Your task to perform on an android device: Show me the alarms in the clock app Image 0: 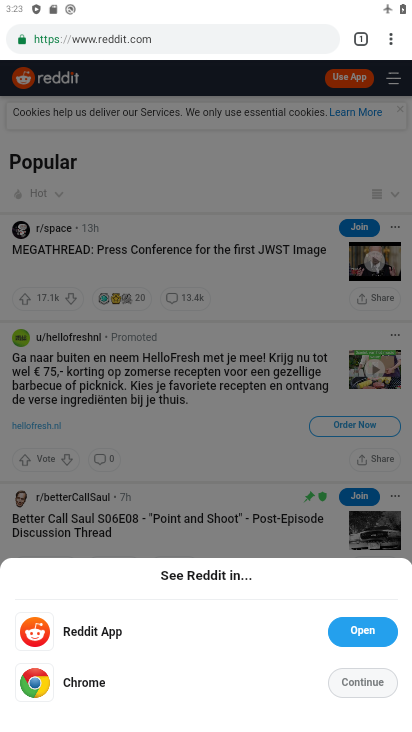
Step 0: press home button
Your task to perform on an android device: Show me the alarms in the clock app Image 1: 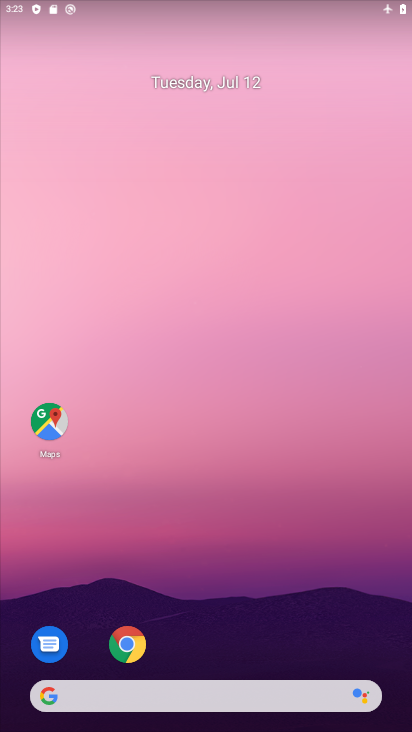
Step 1: drag from (220, 449) to (214, 37)
Your task to perform on an android device: Show me the alarms in the clock app Image 2: 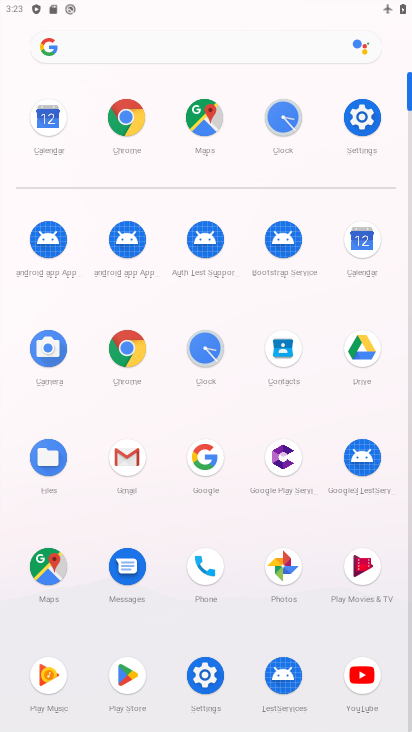
Step 2: click (200, 355)
Your task to perform on an android device: Show me the alarms in the clock app Image 3: 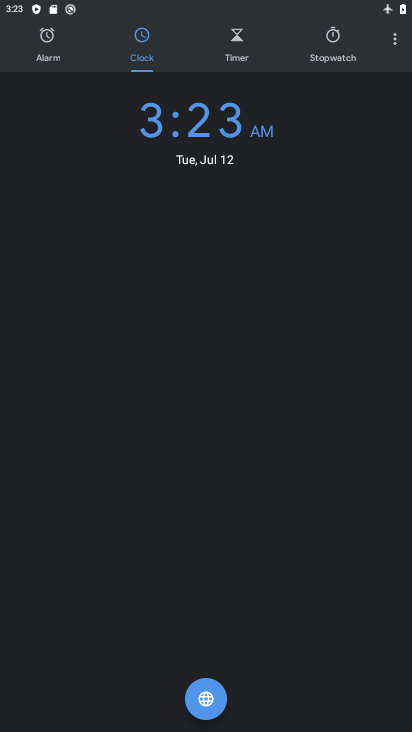
Step 3: click (65, 60)
Your task to perform on an android device: Show me the alarms in the clock app Image 4: 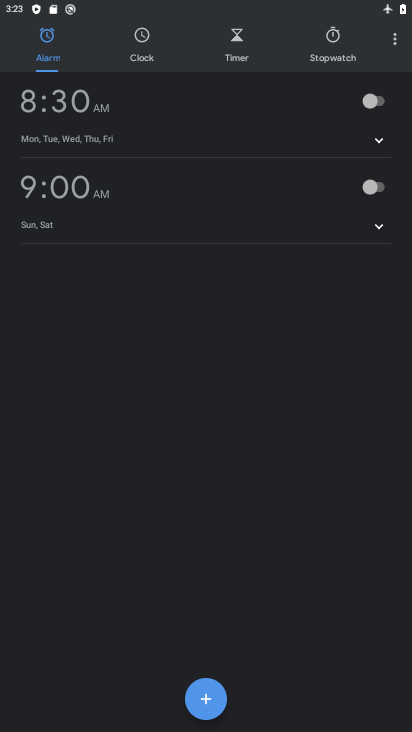
Step 4: task complete